Your task to perform on an android device: turn off picture-in-picture Image 0: 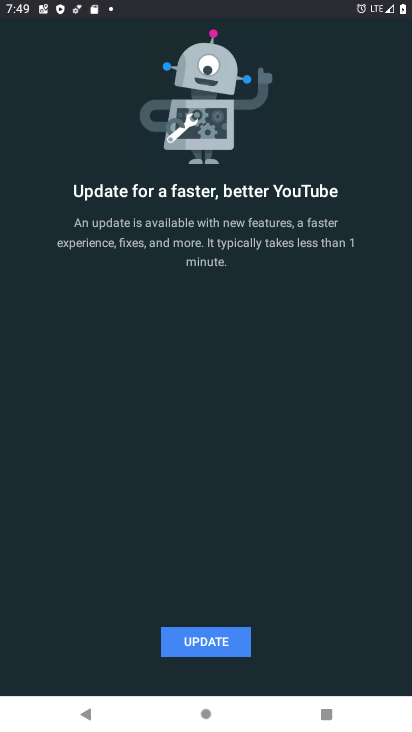
Step 0: press home button
Your task to perform on an android device: turn off picture-in-picture Image 1: 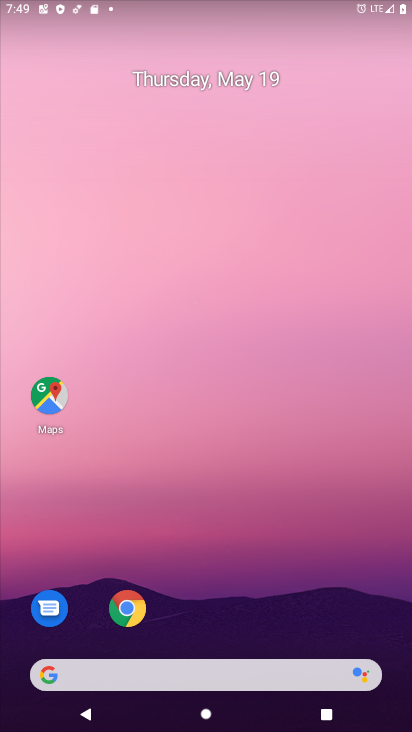
Step 1: click (130, 608)
Your task to perform on an android device: turn off picture-in-picture Image 2: 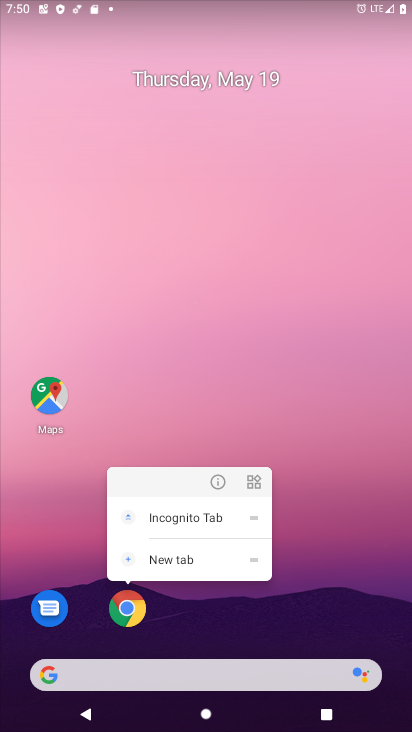
Step 2: click (212, 481)
Your task to perform on an android device: turn off picture-in-picture Image 3: 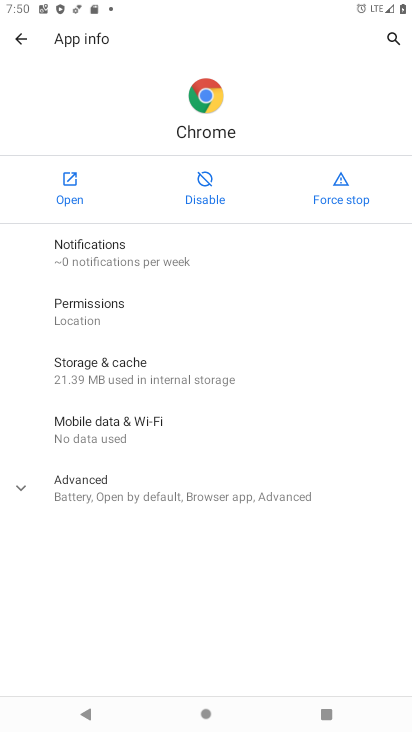
Step 3: click (18, 484)
Your task to perform on an android device: turn off picture-in-picture Image 4: 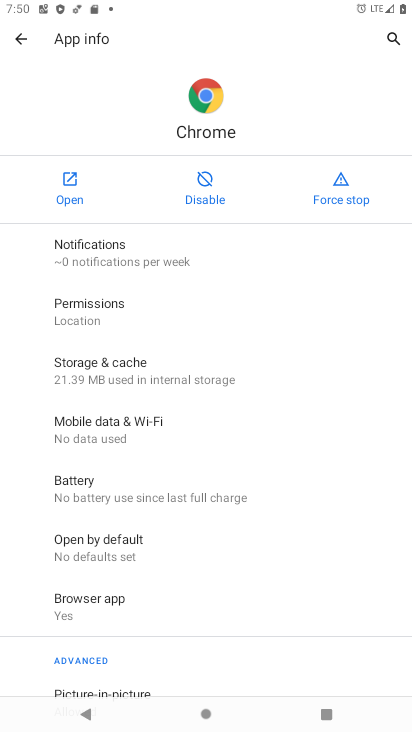
Step 4: drag from (201, 665) to (214, 515)
Your task to perform on an android device: turn off picture-in-picture Image 5: 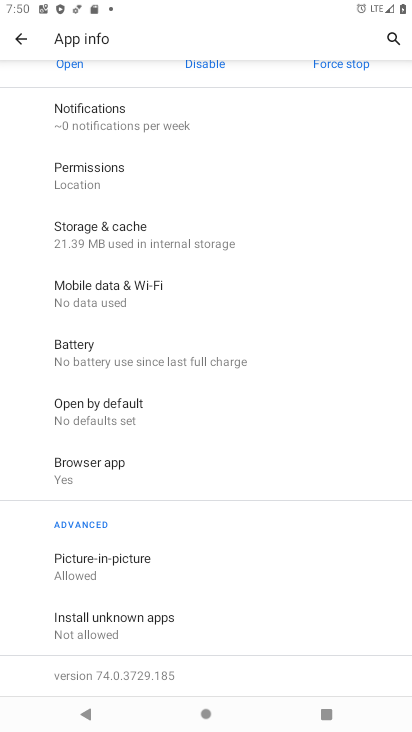
Step 5: click (90, 562)
Your task to perform on an android device: turn off picture-in-picture Image 6: 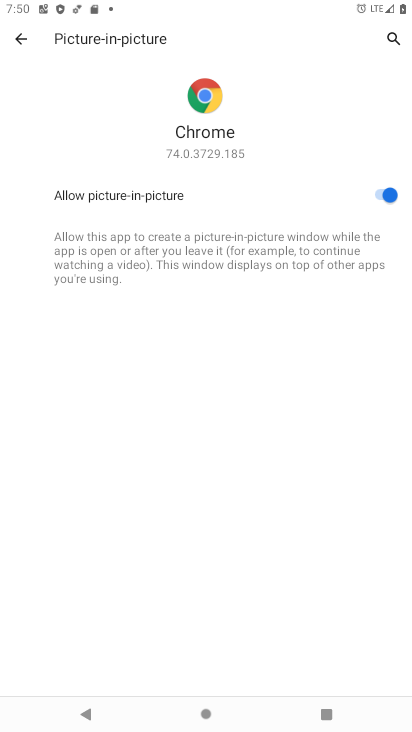
Step 6: click (376, 185)
Your task to perform on an android device: turn off picture-in-picture Image 7: 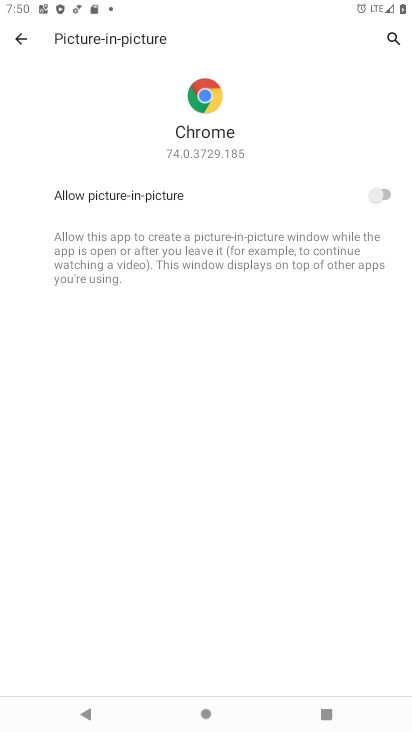
Step 7: task complete